Your task to perform on an android device: check out phone information Image 0: 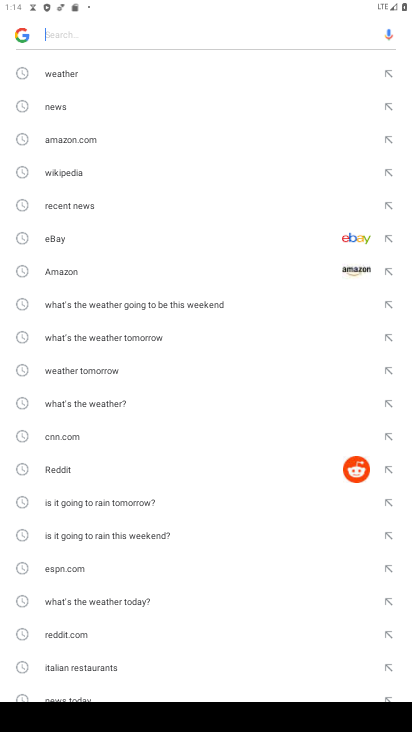
Step 0: press home button
Your task to perform on an android device: check out phone information Image 1: 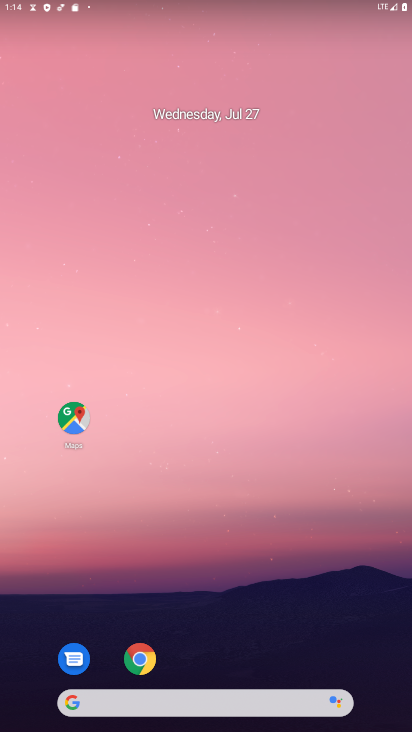
Step 1: drag from (196, 329) to (195, 76)
Your task to perform on an android device: check out phone information Image 2: 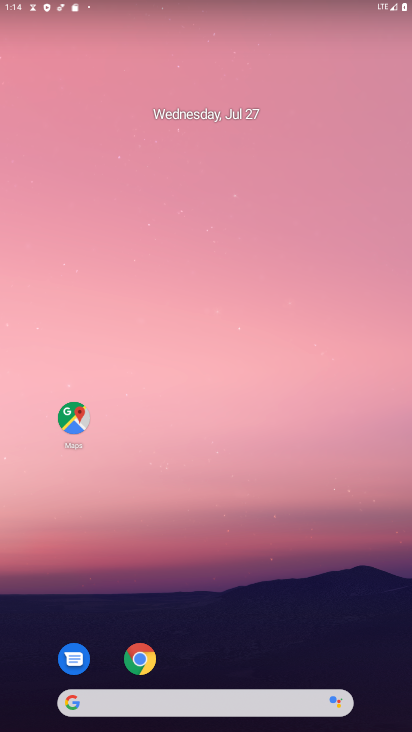
Step 2: drag from (224, 729) to (203, 21)
Your task to perform on an android device: check out phone information Image 3: 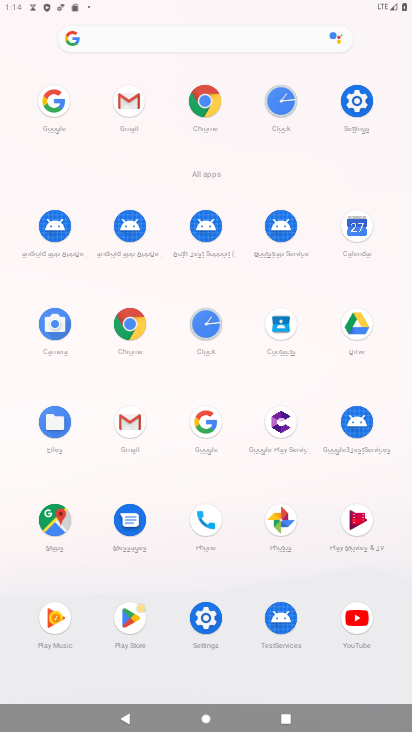
Step 3: click (372, 100)
Your task to perform on an android device: check out phone information Image 4: 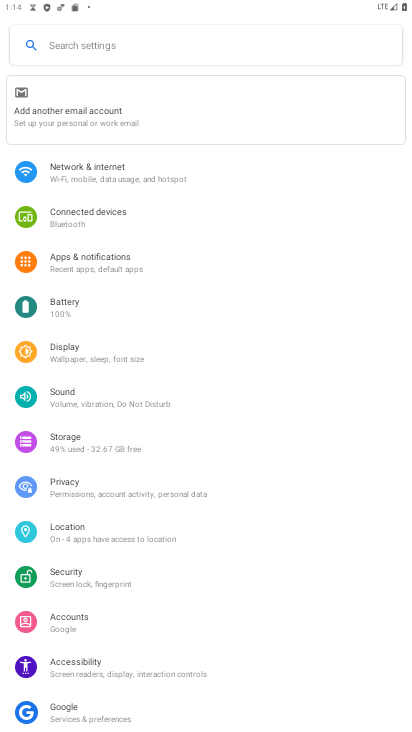
Step 4: drag from (158, 703) to (158, 287)
Your task to perform on an android device: check out phone information Image 5: 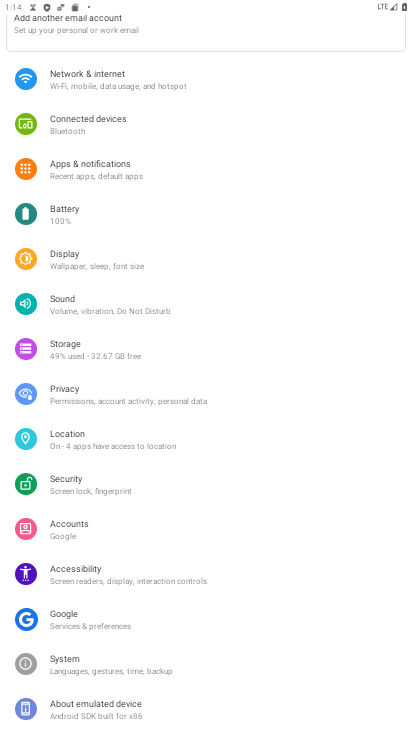
Step 5: click (94, 709)
Your task to perform on an android device: check out phone information Image 6: 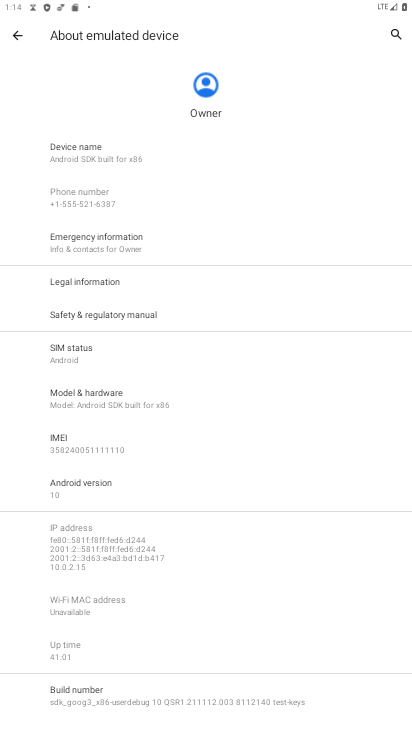
Step 6: task complete